Your task to perform on an android device: Go to Google Image 0: 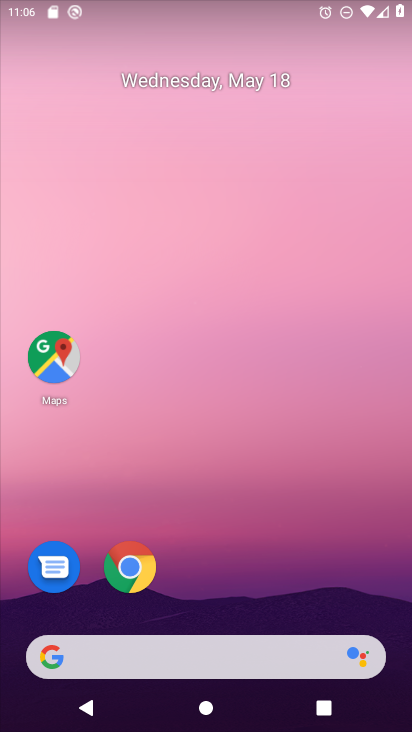
Step 0: drag from (269, 655) to (210, 277)
Your task to perform on an android device: Go to Google Image 1: 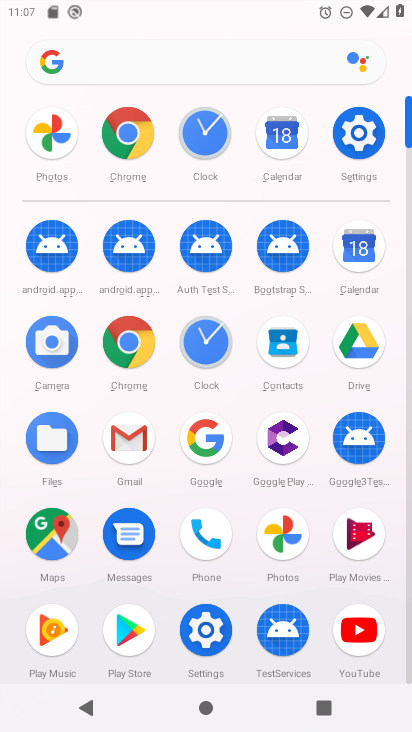
Step 1: click (42, 56)
Your task to perform on an android device: Go to Google Image 2: 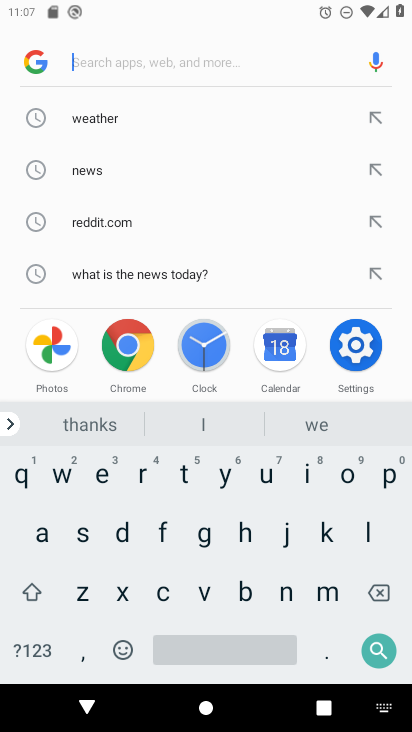
Step 2: click (42, 56)
Your task to perform on an android device: Go to Google Image 3: 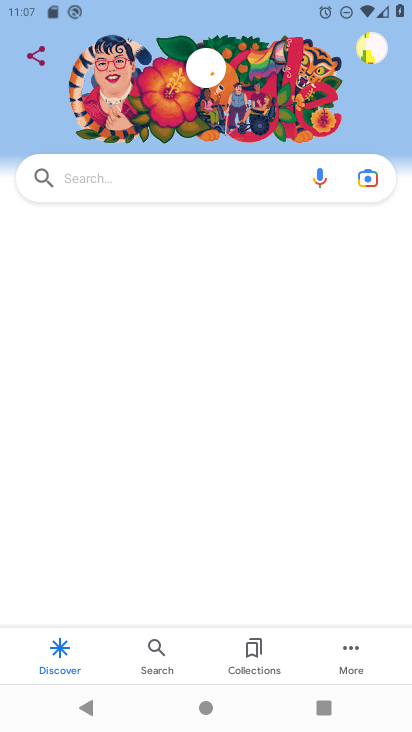
Step 3: task complete